Your task to perform on an android device: turn on location history Image 0: 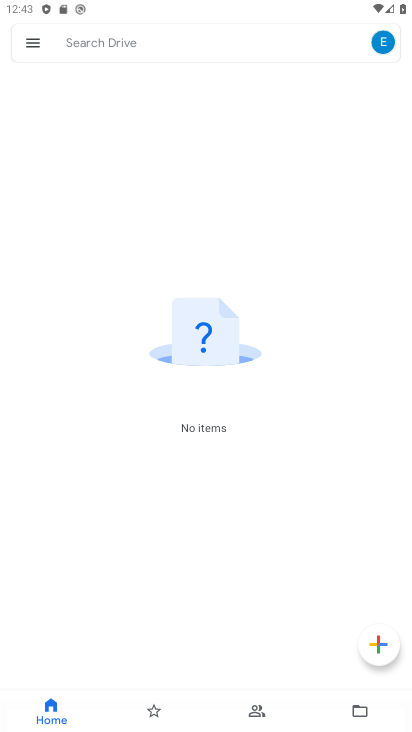
Step 0: press home button
Your task to perform on an android device: turn on location history Image 1: 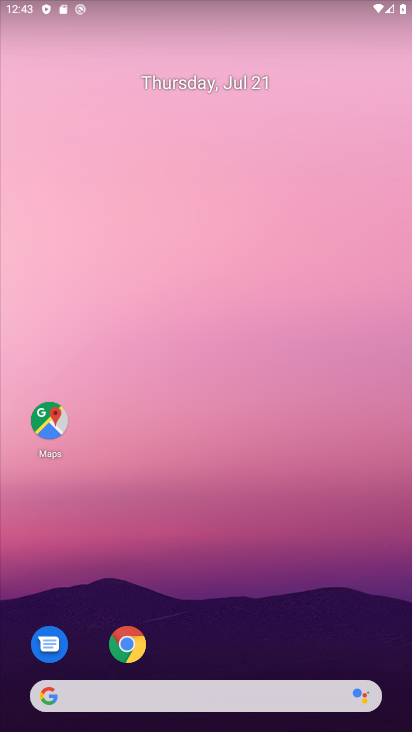
Step 1: drag from (207, 670) to (170, 124)
Your task to perform on an android device: turn on location history Image 2: 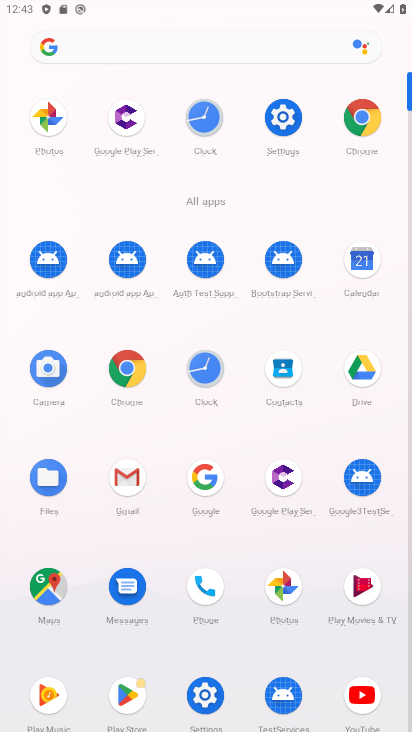
Step 2: click (282, 113)
Your task to perform on an android device: turn on location history Image 3: 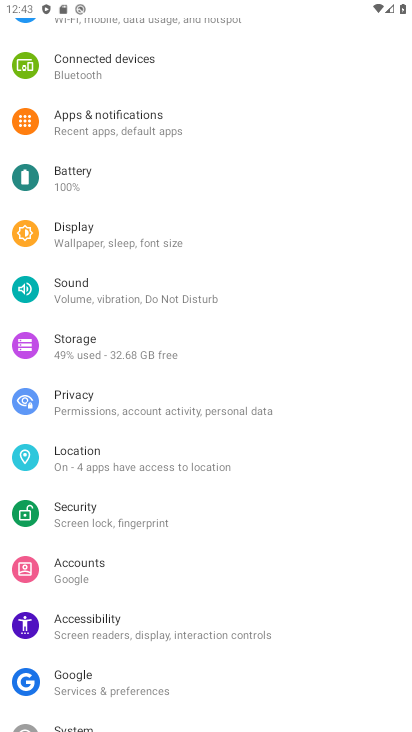
Step 3: click (109, 454)
Your task to perform on an android device: turn on location history Image 4: 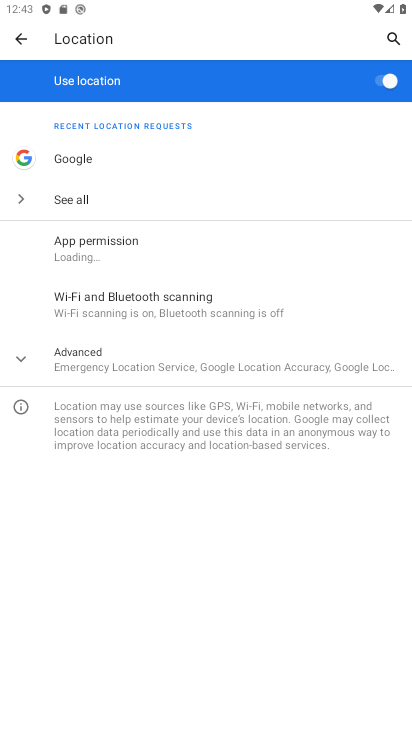
Step 4: click (125, 370)
Your task to perform on an android device: turn on location history Image 5: 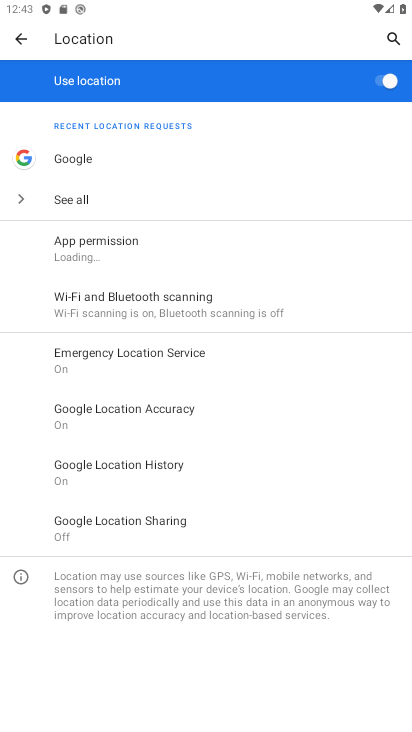
Step 5: click (123, 462)
Your task to perform on an android device: turn on location history Image 6: 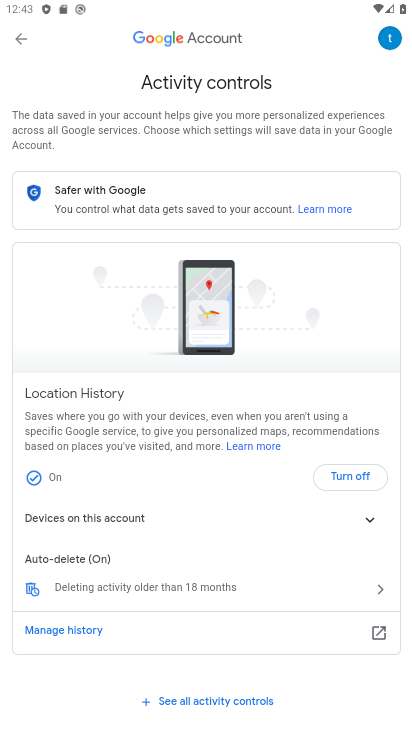
Step 6: task complete